Your task to perform on an android device: Open calendar and show me the fourth week of next month Image 0: 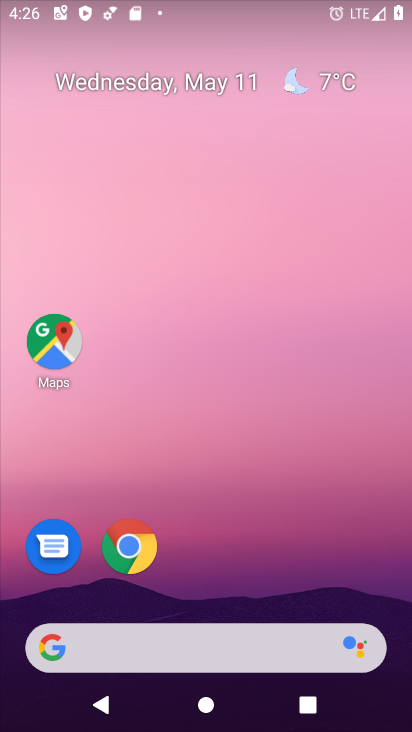
Step 0: drag from (289, 184) to (344, 57)
Your task to perform on an android device: Open calendar and show me the fourth week of next month Image 1: 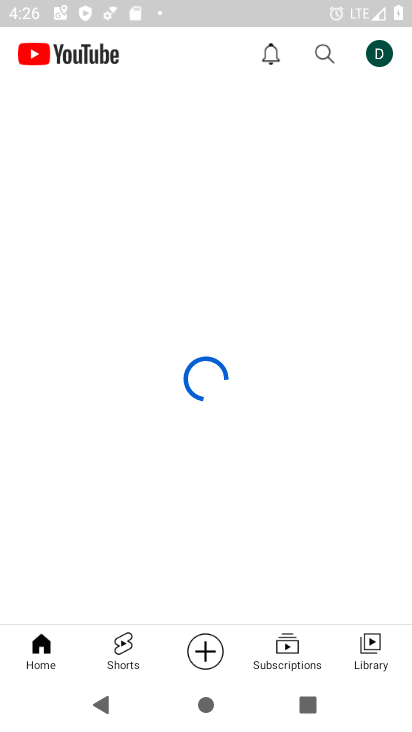
Step 1: press home button
Your task to perform on an android device: Open calendar and show me the fourth week of next month Image 2: 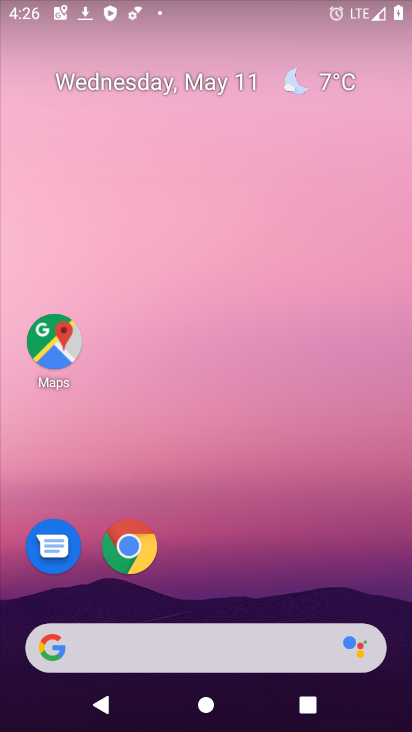
Step 2: drag from (242, 648) to (339, 41)
Your task to perform on an android device: Open calendar and show me the fourth week of next month Image 3: 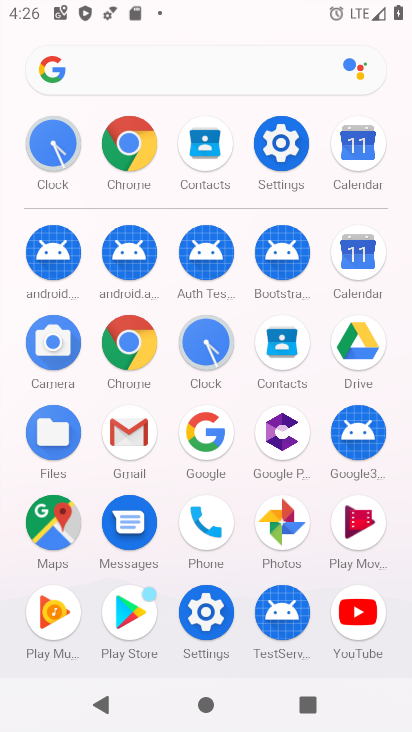
Step 3: click (370, 260)
Your task to perform on an android device: Open calendar and show me the fourth week of next month Image 4: 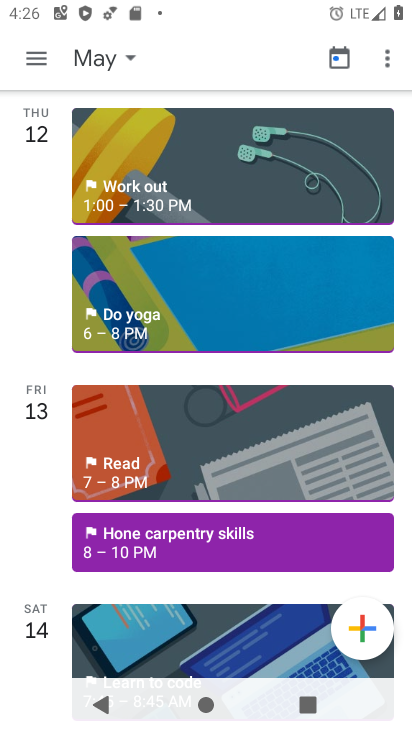
Step 4: click (111, 54)
Your task to perform on an android device: Open calendar and show me the fourth week of next month Image 5: 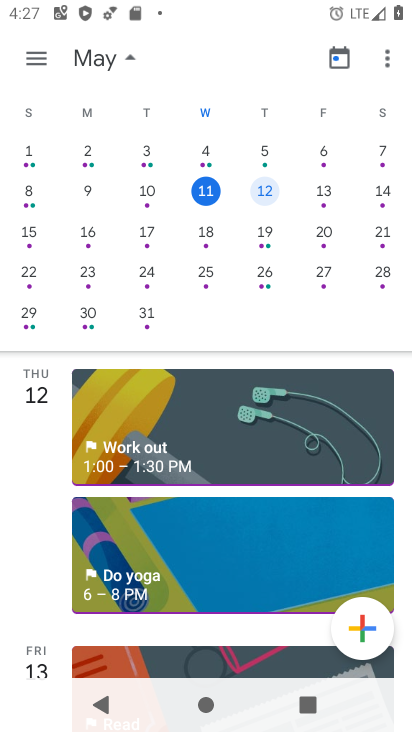
Step 5: drag from (368, 260) to (38, 259)
Your task to perform on an android device: Open calendar and show me the fourth week of next month Image 6: 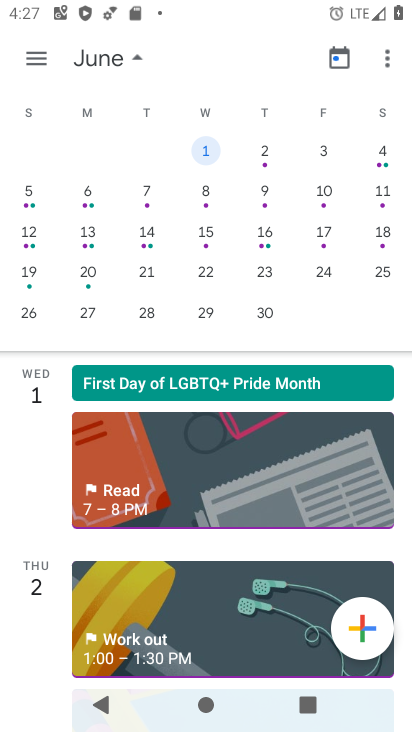
Step 6: click (260, 270)
Your task to perform on an android device: Open calendar and show me the fourth week of next month Image 7: 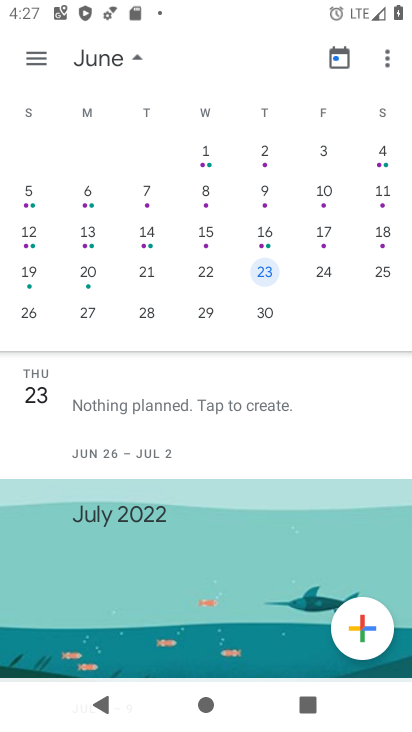
Step 7: task complete